Your task to perform on an android device: turn on wifi Image 0: 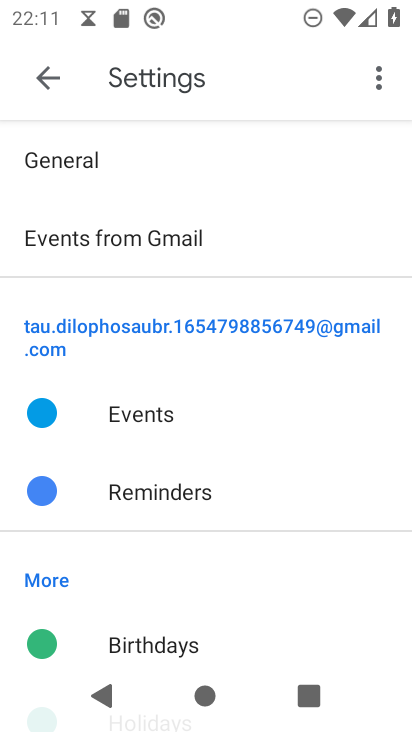
Step 0: press home button
Your task to perform on an android device: turn on wifi Image 1: 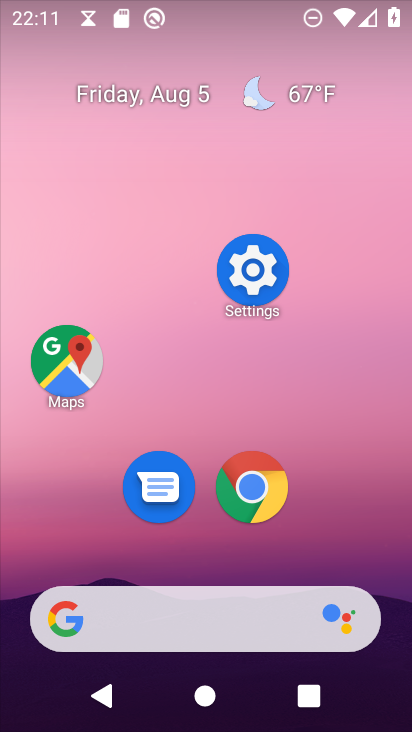
Step 1: click (254, 270)
Your task to perform on an android device: turn on wifi Image 2: 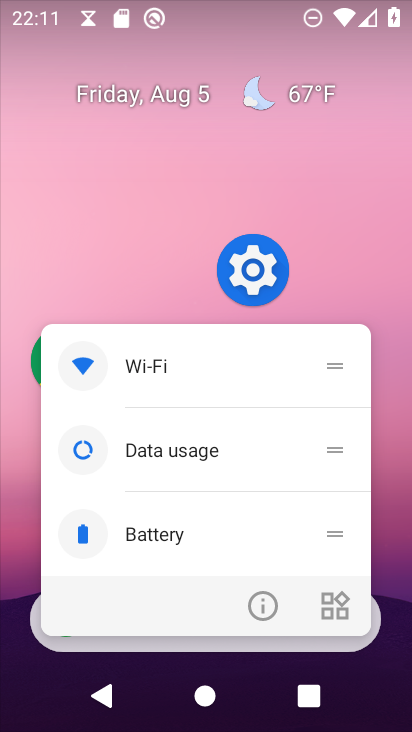
Step 2: click (254, 270)
Your task to perform on an android device: turn on wifi Image 3: 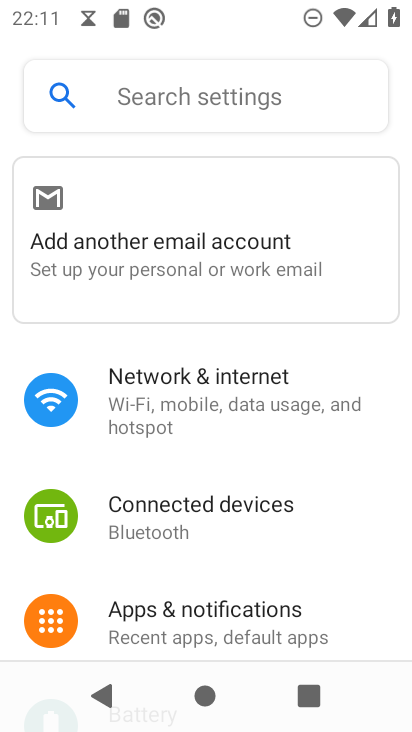
Step 3: click (209, 394)
Your task to perform on an android device: turn on wifi Image 4: 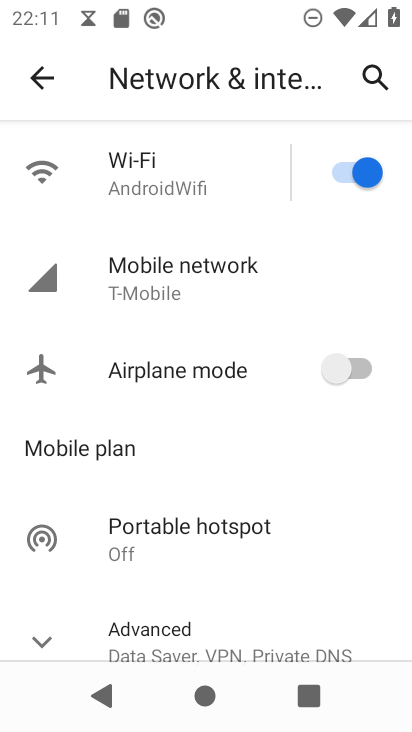
Step 4: task complete